Your task to perform on an android device: open wifi settings Image 0: 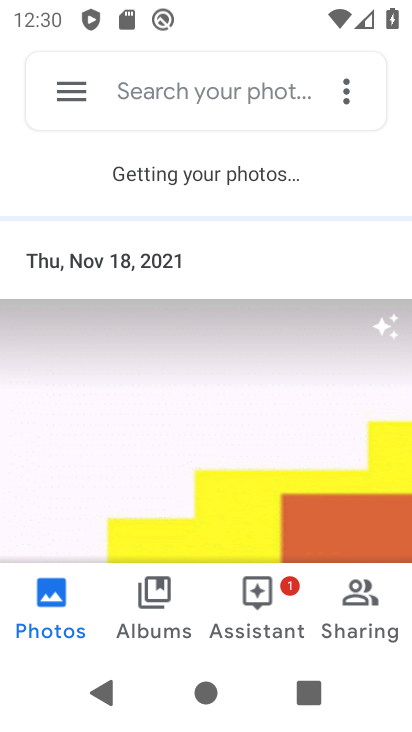
Step 0: press home button
Your task to perform on an android device: open wifi settings Image 1: 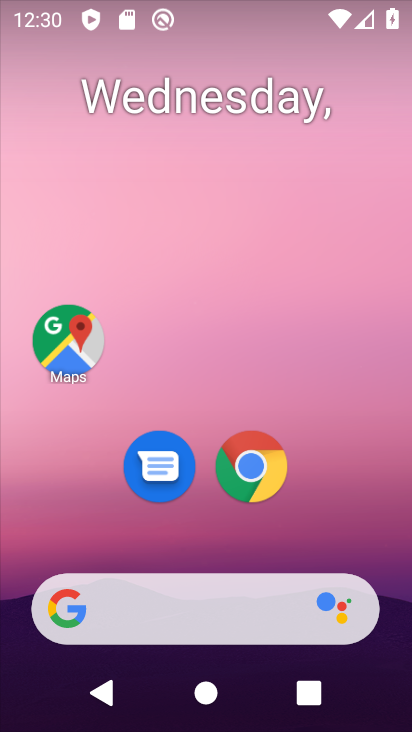
Step 1: drag from (186, 90) to (5, 731)
Your task to perform on an android device: open wifi settings Image 2: 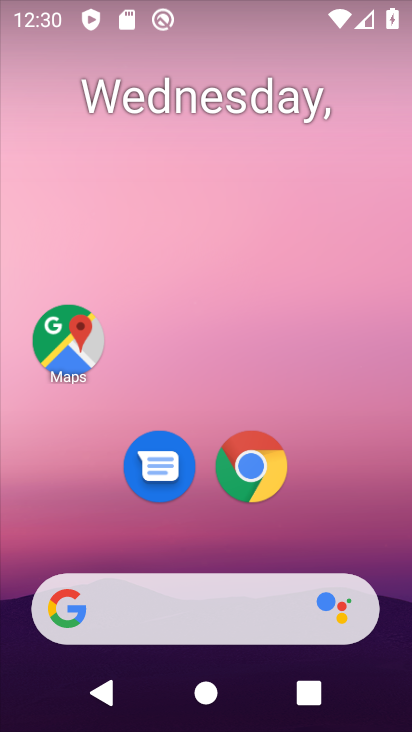
Step 2: drag from (209, 39) to (231, 563)
Your task to perform on an android device: open wifi settings Image 3: 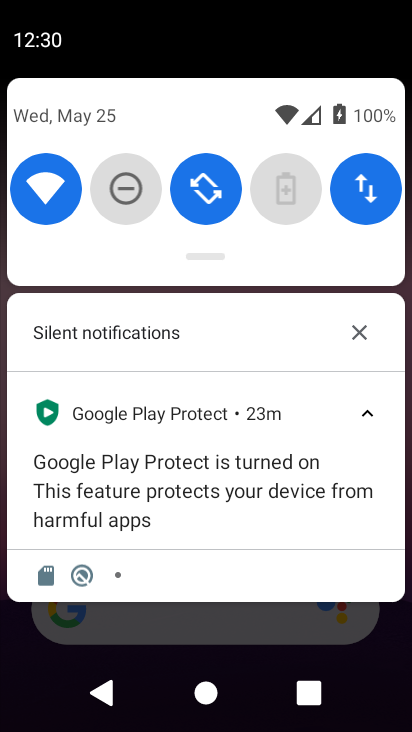
Step 3: drag from (227, 11) to (240, 54)
Your task to perform on an android device: open wifi settings Image 4: 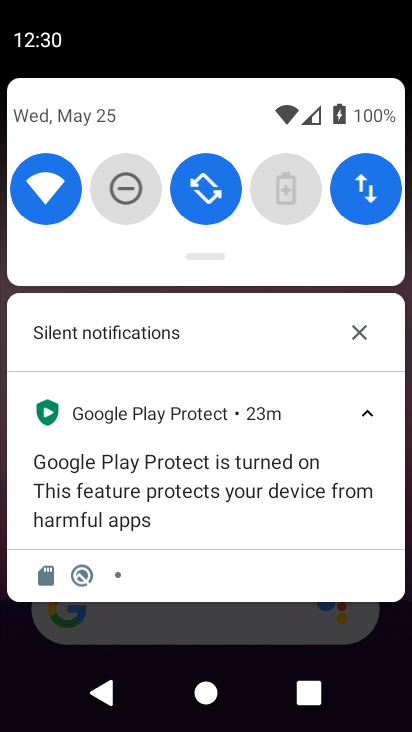
Step 4: drag from (206, 311) to (196, 647)
Your task to perform on an android device: open wifi settings Image 5: 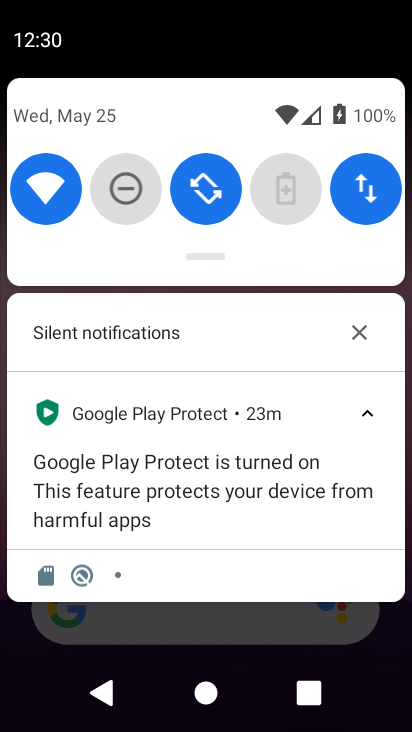
Step 5: click (54, 196)
Your task to perform on an android device: open wifi settings Image 6: 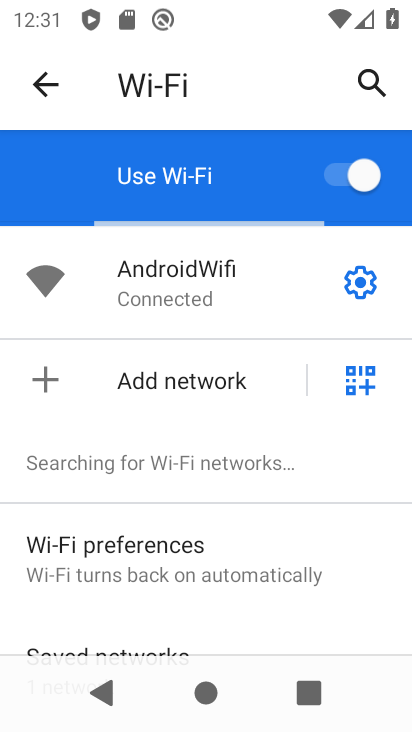
Step 6: task complete